Your task to perform on an android device: Show me productivity apps on the Play Store Image 0: 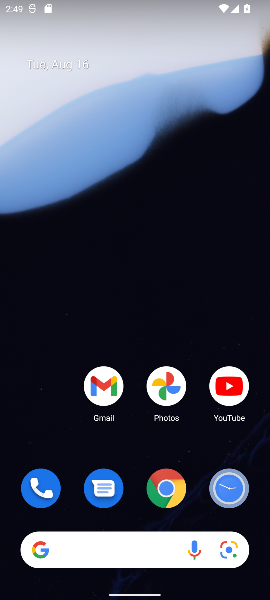
Step 0: drag from (45, 397) to (80, 171)
Your task to perform on an android device: Show me productivity apps on the Play Store Image 1: 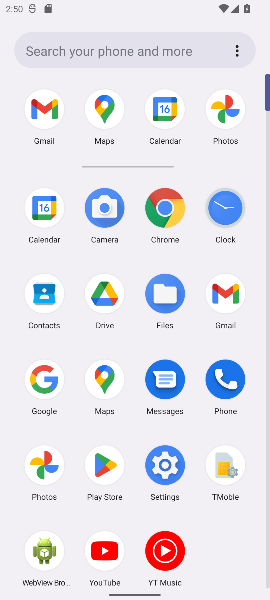
Step 1: click (94, 463)
Your task to perform on an android device: Show me productivity apps on the Play Store Image 2: 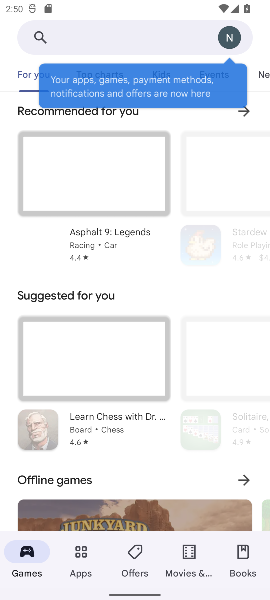
Step 2: task complete